Your task to perform on an android device: open device folders in google photos Image 0: 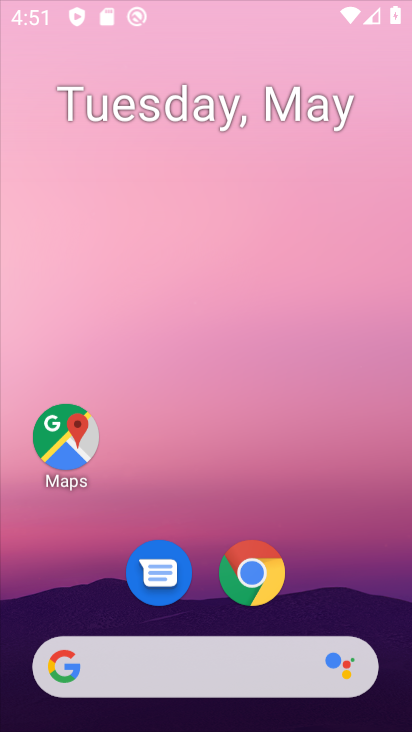
Step 0: click (143, 657)
Your task to perform on an android device: open device folders in google photos Image 1: 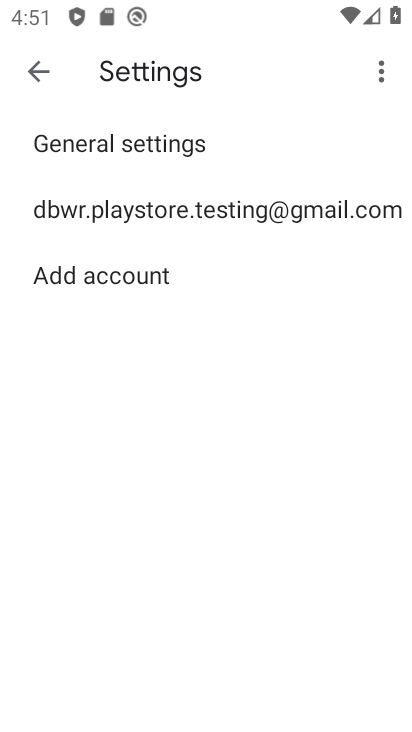
Step 1: press back button
Your task to perform on an android device: open device folders in google photos Image 2: 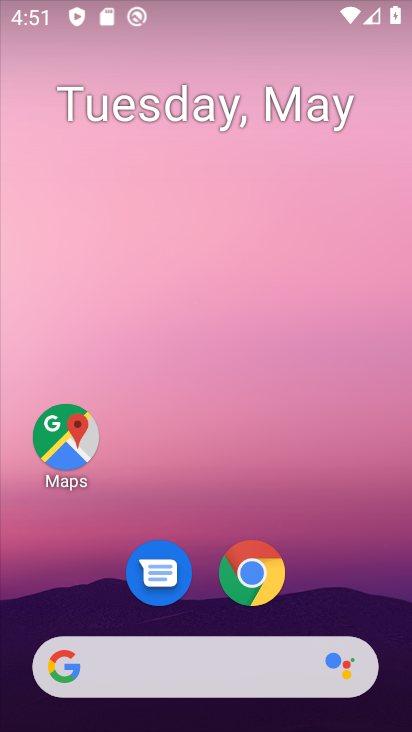
Step 2: click (199, 653)
Your task to perform on an android device: open device folders in google photos Image 3: 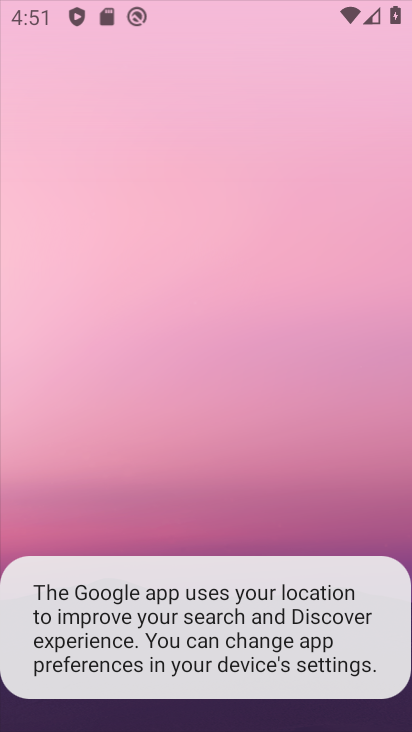
Step 3: drag from (204, 507) to (261, 56)
Your task to perform on an android device: open device folders in google photos Image 4: 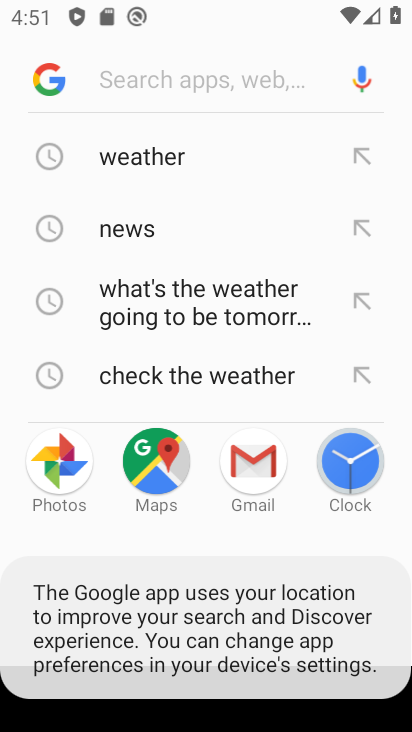
Step 4: press back button
Your task to perform on an android device: open device folders in google photos Image 5: 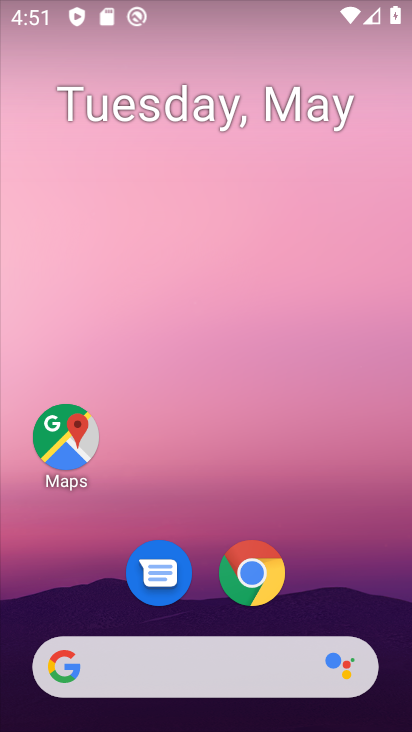
Step 5: drag from (225, 489) to (225, 16)
Your task to perform on an android device: open device folders in google photos Image 6: 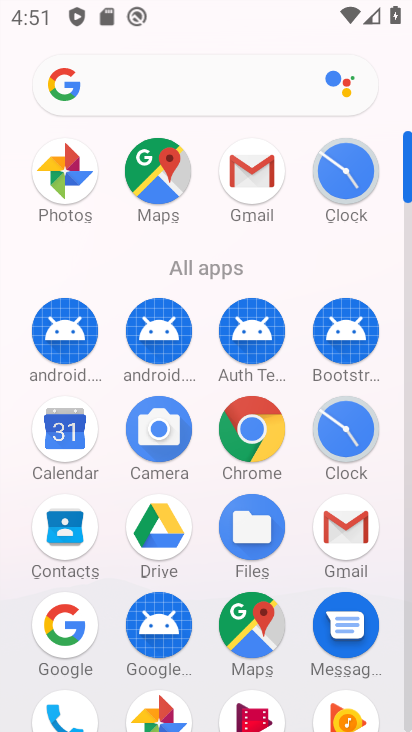
Step 6: click (160, 710)
Your task to perform on an android device: open device folders in google photos Image 7: 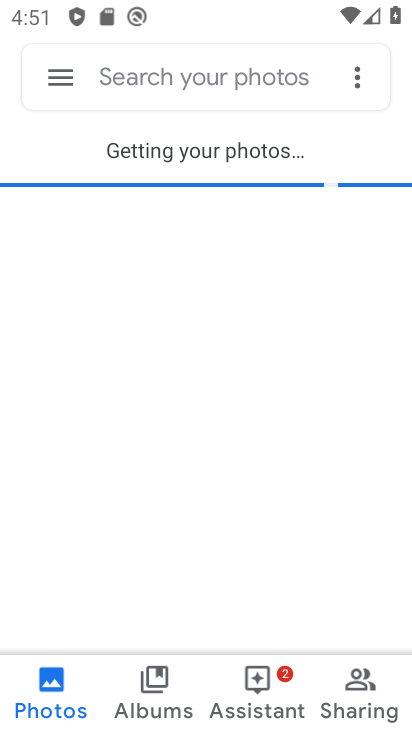
Step 7: click (65, 76)
Your task to perform on an android device: open device folders in google photos Image 8: 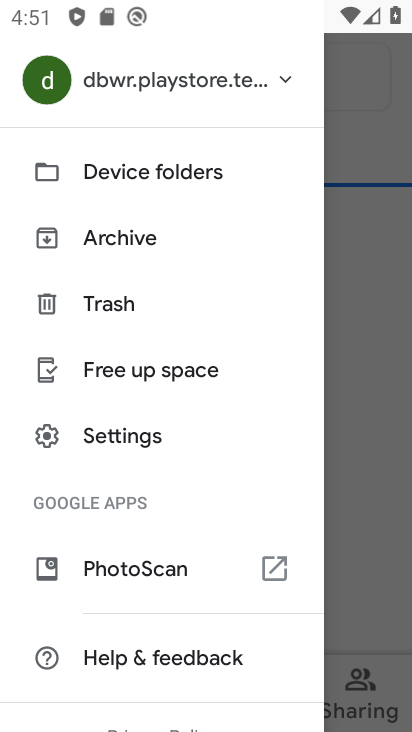
Step 8: click (149, 177)
Your task to perform on an android device: open device folders in google photos Image 9: 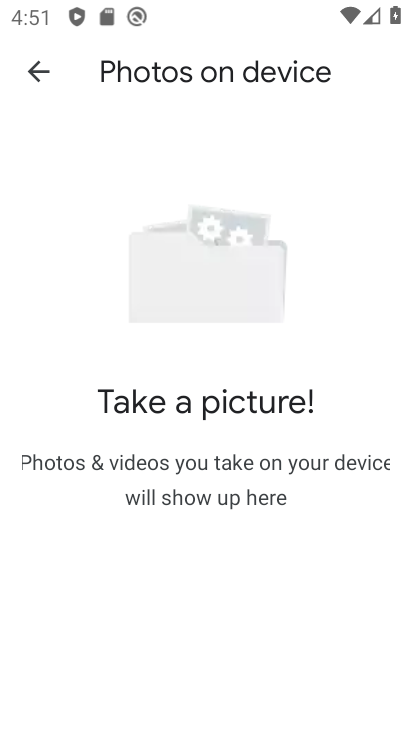
Step 9: task complete